Your task to perform on an android device: Google the capital of the United States Image 0: 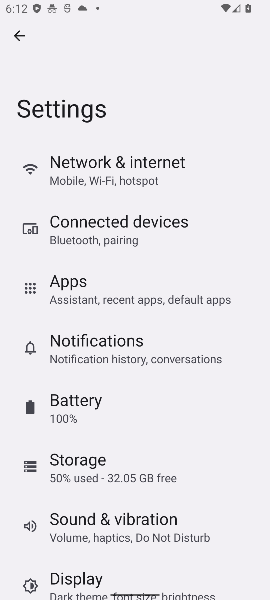
Step 0: press home button
Your task to perform on an android device: Google the capital of the United States Image 1: 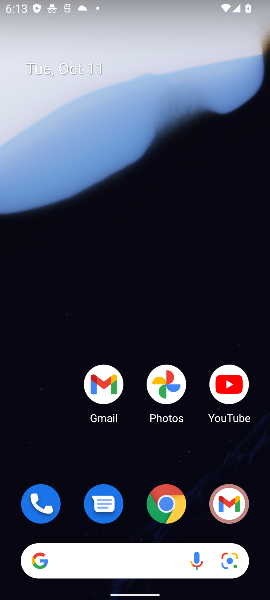
Step 1: click (98, 552)
Your task to perform on an android device: Google the capital of the United States Image 2: 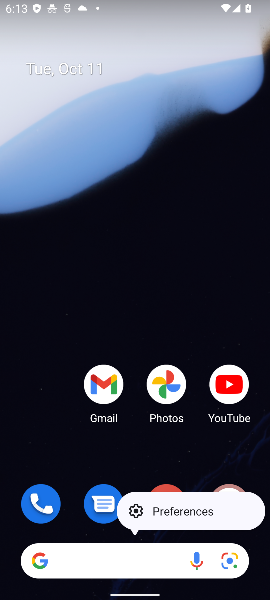
Step 2: click (85, 568)
Your task to perform on an android device: Google the capital of the United States Image 3: 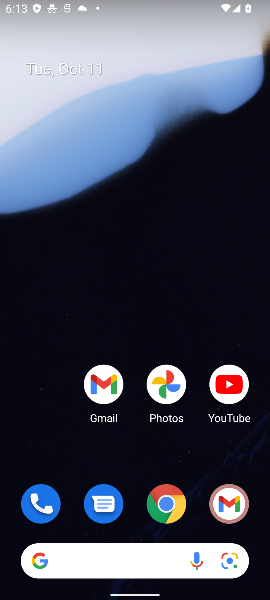
Step 3: click (102, 563)
Your task to perform on an android device: Google the capital of the United States Image 4: 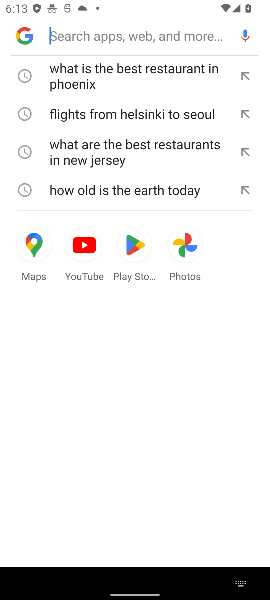
Step 4: click (95, 34)
Your task to perform on an android device: Google the capital of the United States Image 5: 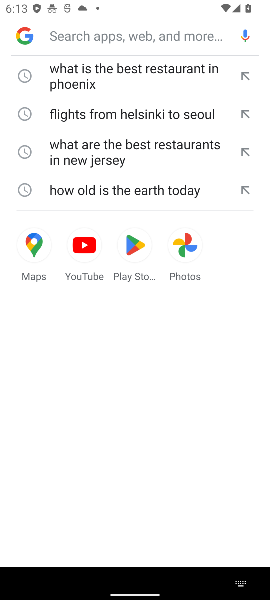
Step 5: type "capital of the United States"
Your task to perform on an android device: Google the capital of the United States Image 6: 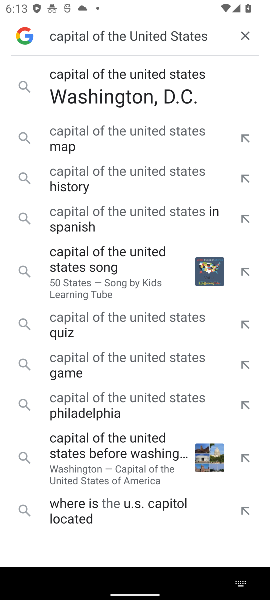
Step 6: click (79, 86)
Your task to perform on an android device: Google the capital of the United States Image 7: 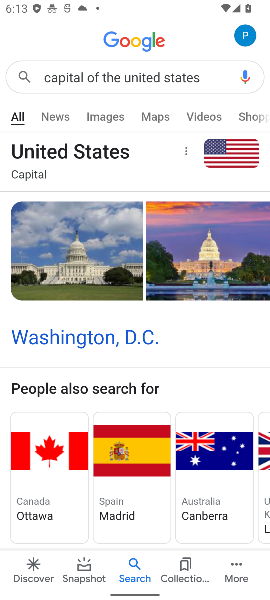
Step 7: task complete